Your task to perform on an android device: open chrome privacy settings Image 0: 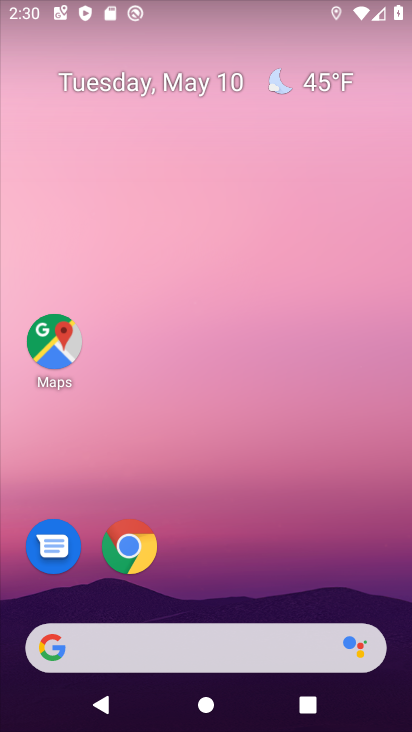
Step 0: drag from (252, 478) to (163, 34)
Your task to perform on an android device: open chrome privacy settings Image 1: 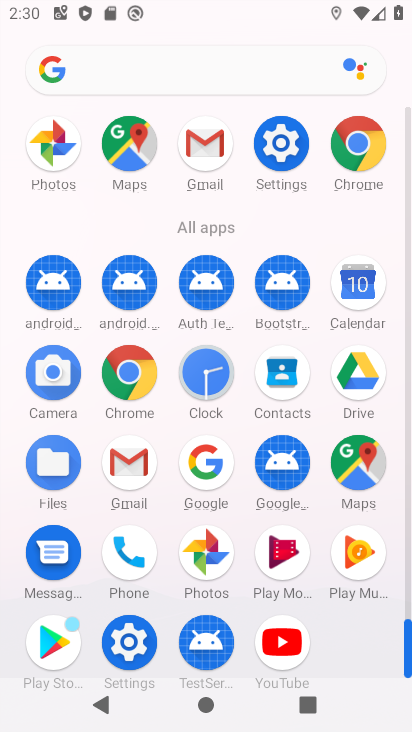
Step 1: drag from (7, 524) to (3, 216)
Your task to perform on an android device: open chrome privacy settings Image 2: 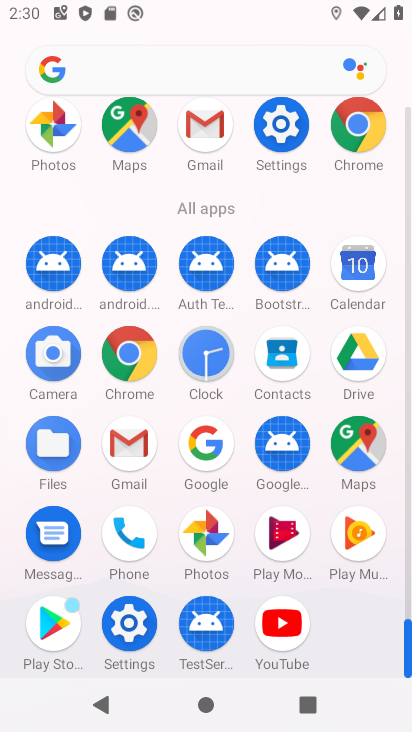
Step 2: click (126, 348)
Your task to perform on an android device: open chrome privacy settings Image 3: 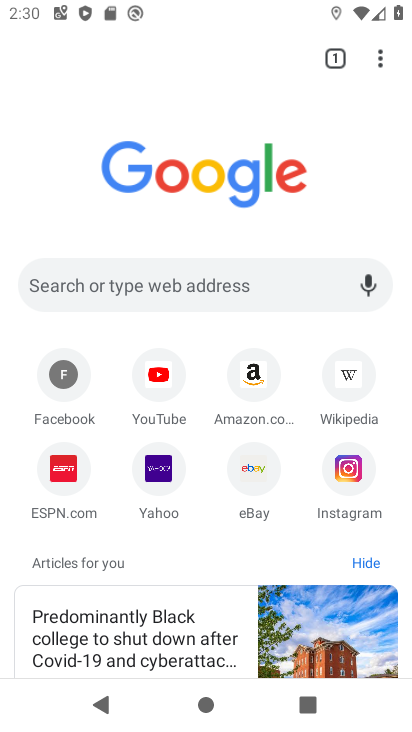
Step 3: drag from (372, 55) to (191, 489)
Your task to perform on an android device: open chrome privacy settings Image 4: 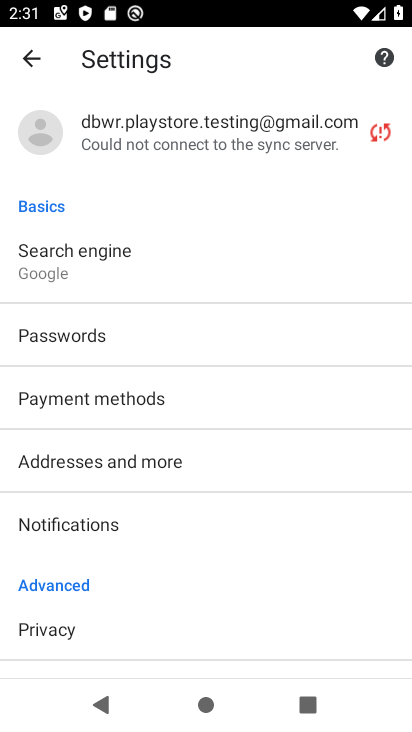
Step 4: click (57, 630)
Your task to perform on an android device: open chrome privacy settings Image 5: 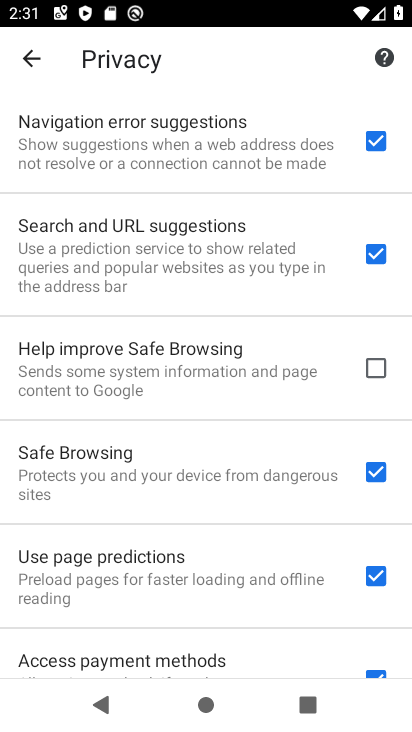
Step 5: task complete